Your task to perform on an android device: Open CNN.com Image 0: 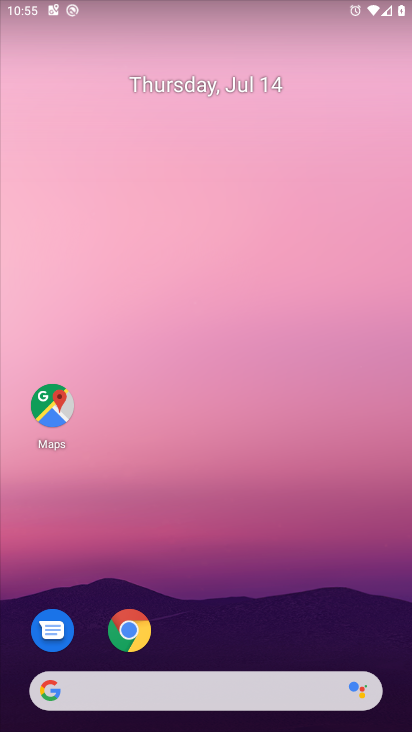
Step 0: drag from (24, 687) to (165, 184)
Your task to perform on an android device: Open CNN.com Image 1: 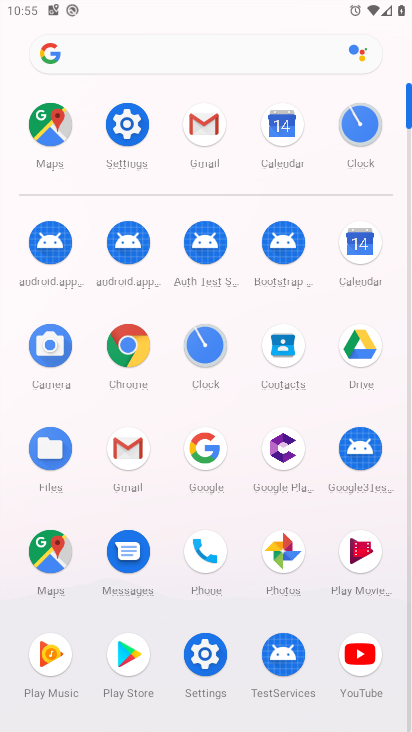
Step 1: click (206, 668)
Your task to perform on an android device: Open CNN.com Image 2: 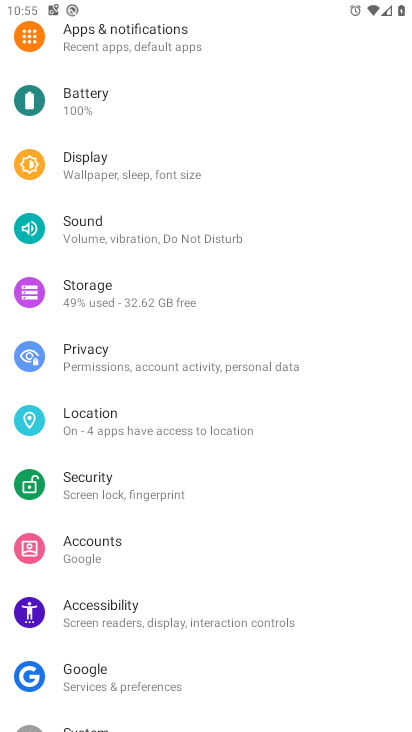
Step 2: drag from (278, 10) to (313, 680)
Your task to perform on an android device: Open CNN.com Image 3: 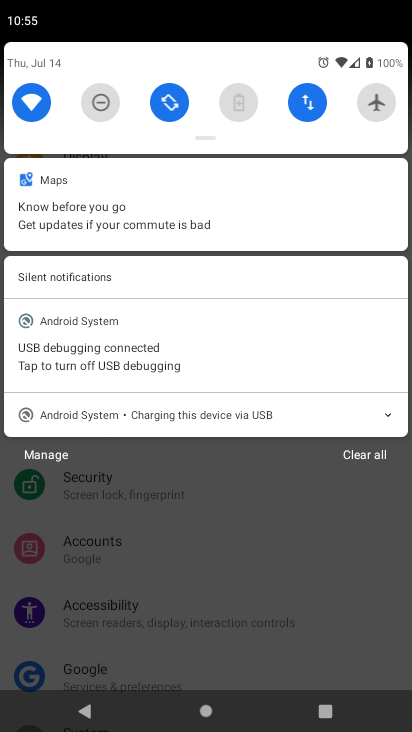
Step 3: click (319, 520)
Your task to perform on an android device: Open CNN.com Image 4: 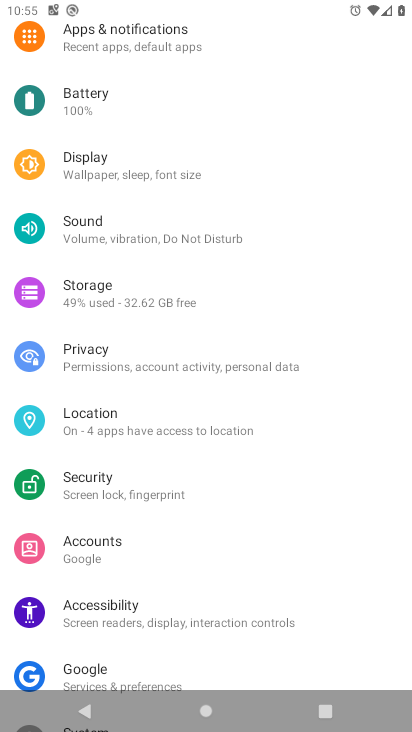
Step 4: drag from (232, 60) to (219, 711)
Your task to perform on an android device: Open CNN.com Image 5: 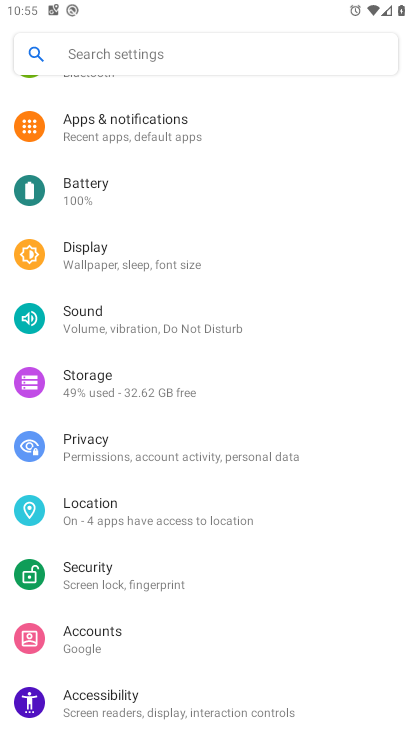
Step 5: drag from (206, 126) to (196, 730)
Your task to perform on an android device: Open CNN.com Image 6: 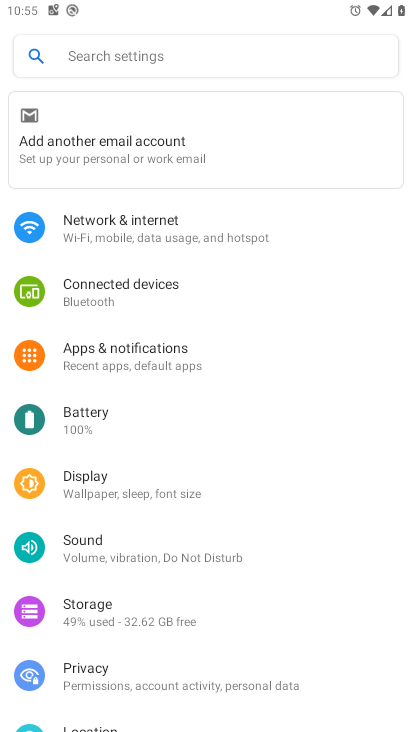
Step 6: press home button
Your task to perform on an android device: Open CNN.com Image 7: 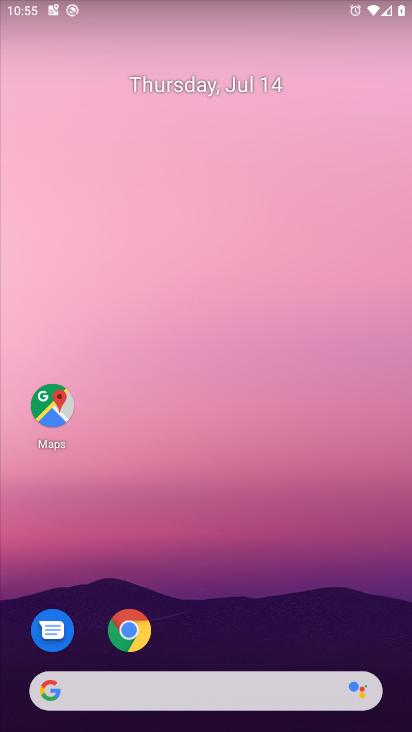
Step 7: click (69, 676)
Your task to perform on an android device: Open CNN.com Image 8: 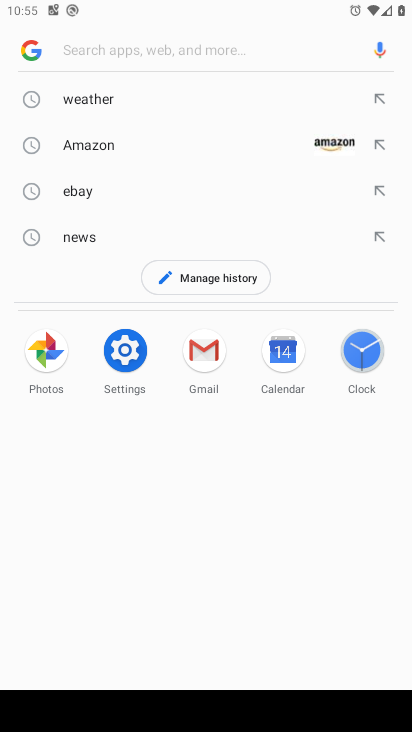
Step 8: type "CNN.com"
Your task to perform on an android device: Open CNN.com Image 9: 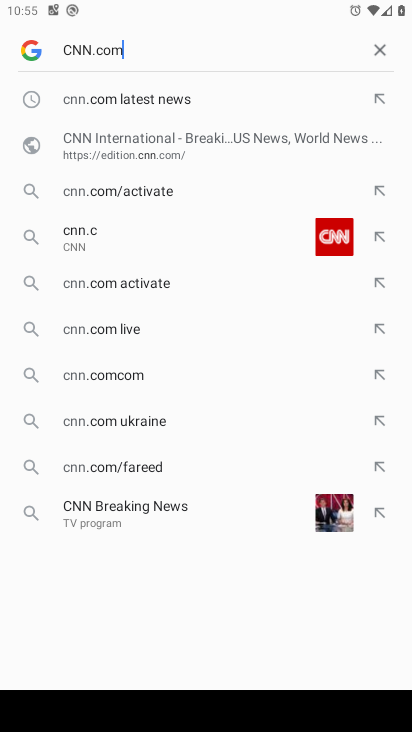
Step 9: type ""
Your task to perform on an android device: Open CNN.com Image 10: 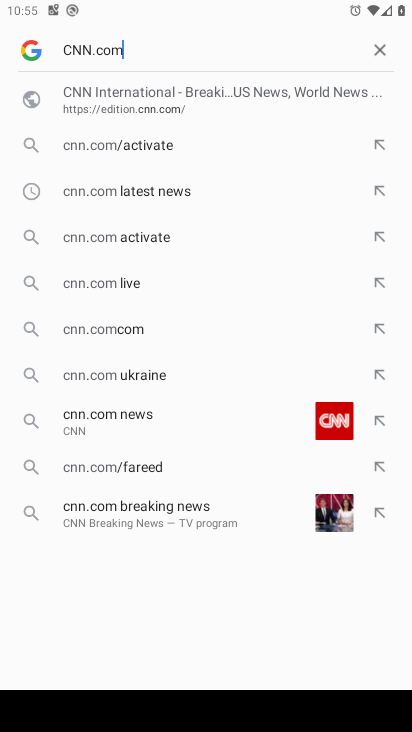
Step 10: type ""
Your task to perform on an android device: Open CNN.com Image 11: 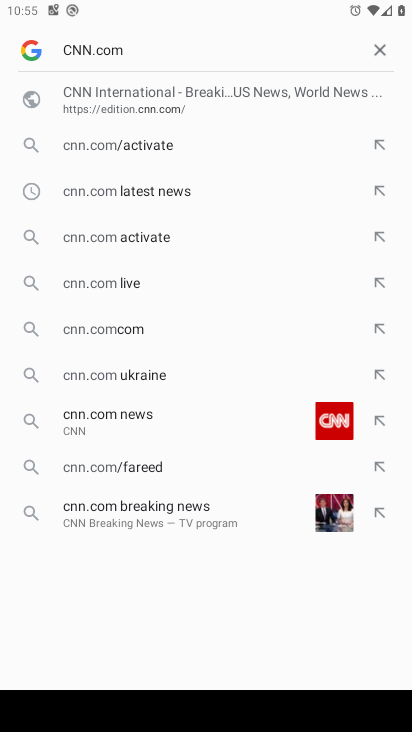
Step 11: type ""
Your task to perform on an android device: Open CNN.com Image 12: 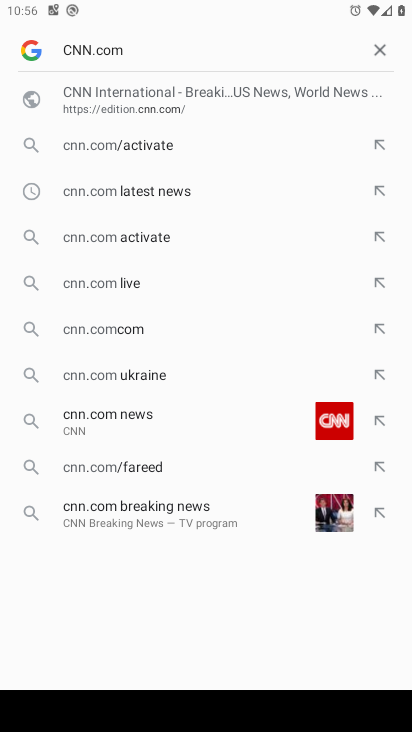
Step 12: task complete